Your task to perform on an android device: allow cookies in the chrome app Image 0: 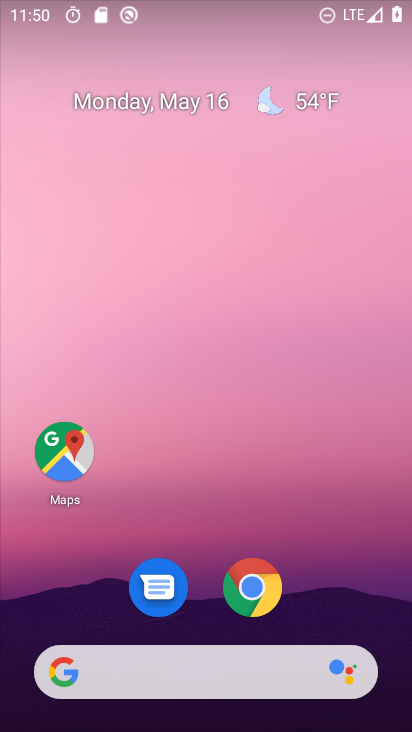
Step 0: drag from (196, 615) to (275, 105)
Your task to perform on an android device: allow cookies in the chrome app Image 1: 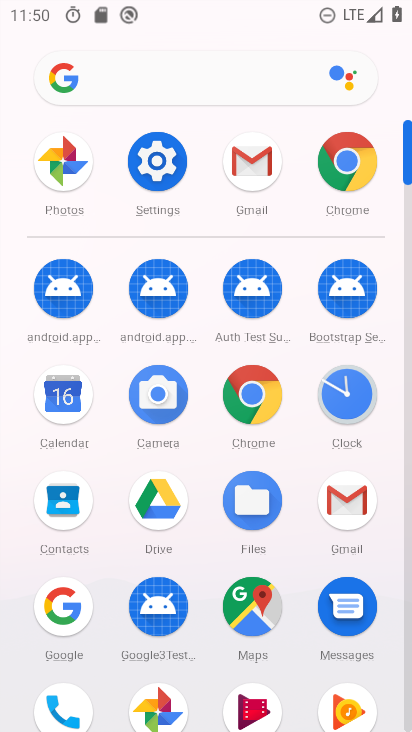
Step 1: click (248, 390)
Your task to perform on an android device: allow cookies in the chrome app Image 2: 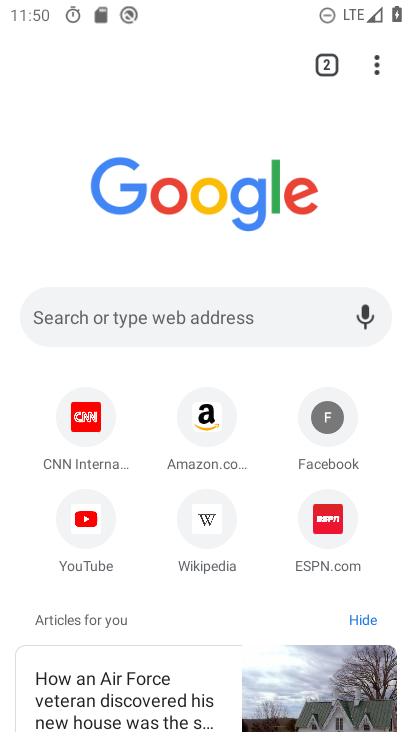
Step 2: drag from (220, 663) to (275, 207)
Your task to perform on an android device: allow cookies in the chrome app Image 3: 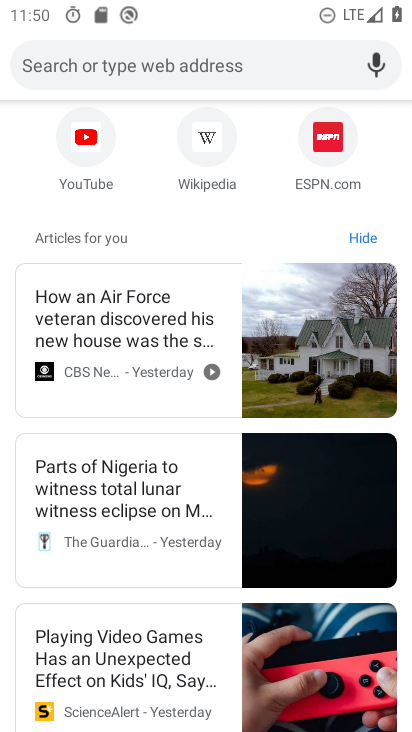
Step 3: drag from (277, 206) to (407, 79)
Your task to perform on an android device: allow cookies in the chrome app Image 4: 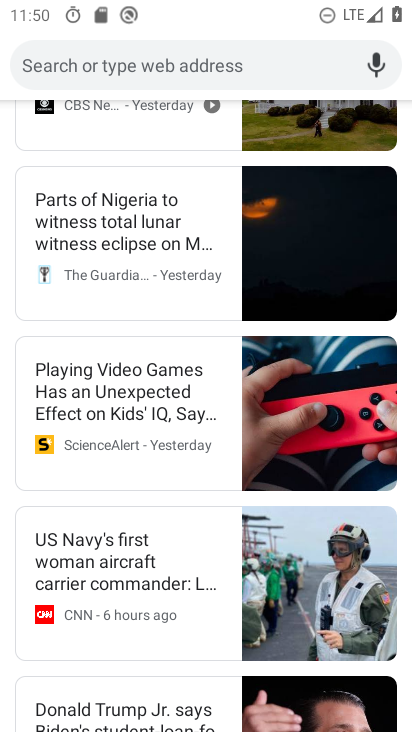
Step 4: click (379, 57)
Your task to perform on an android device: allow cookies in the chrome app Image 5: 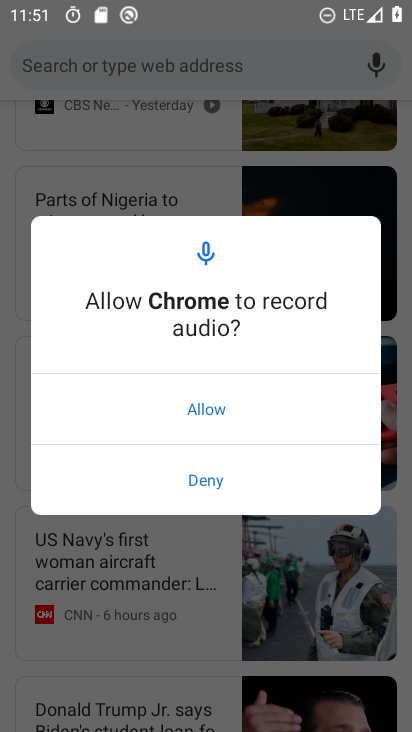
Step 5: press back button
Your task to perform on an android device: allow cookies in the chrome app Image 6: 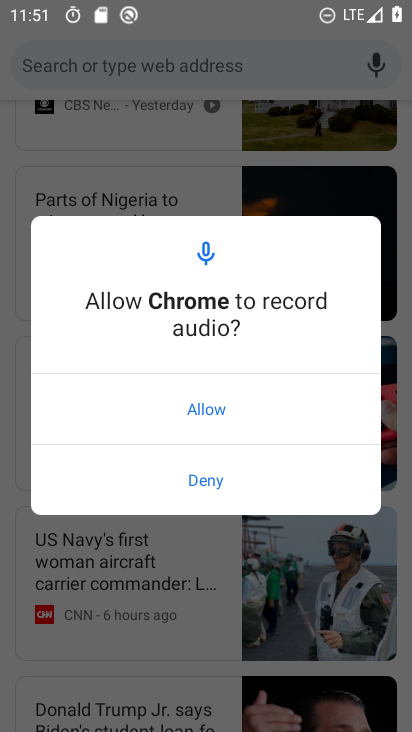
Step 6: click (192, 159)
Your task to perform on an android device: allow cookies in the chrome app Image 7: 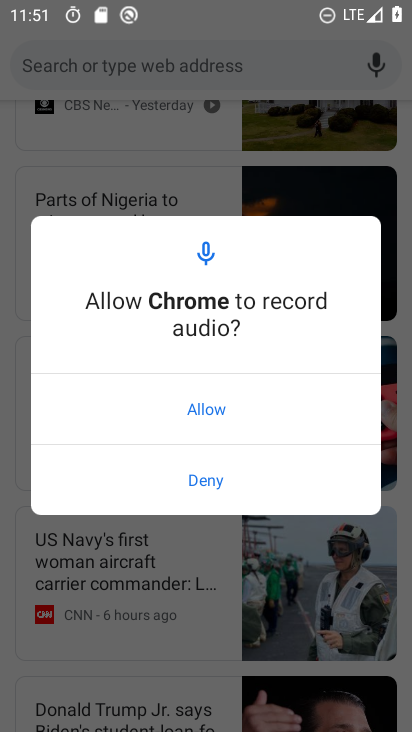
Step 7: click (188, 155)
Your task to perform on an android device: allow cookies in the chrome app Image 8: 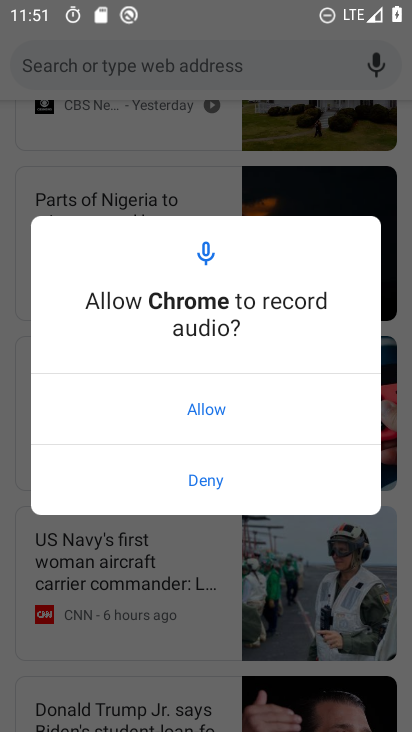
Step 8: press back button
Your task to perform on an android device: allow cookies in the chrome app Image 9: 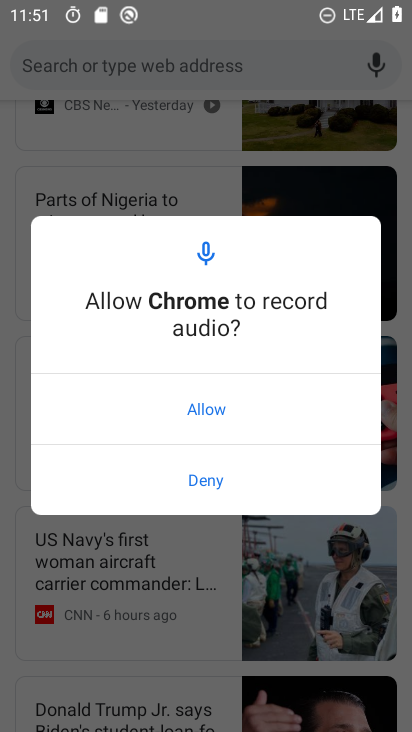
Step 9: press back button
Your task to perform on an android device: allow cookies in the chrome app Image 10: 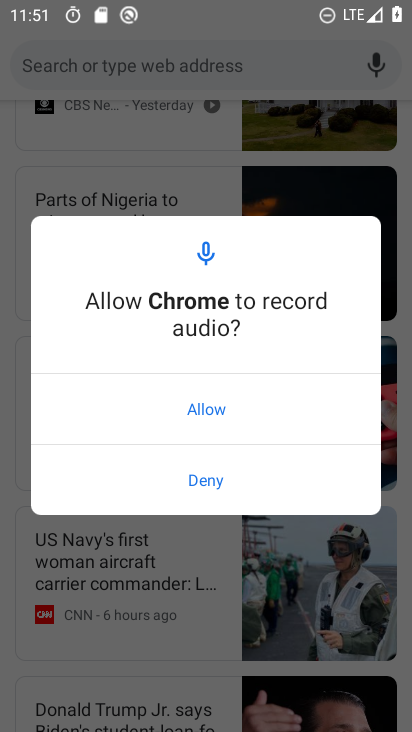
Step 10: press home button
Your task to perform on an android device: allow cookies in the chrome app Image 11: 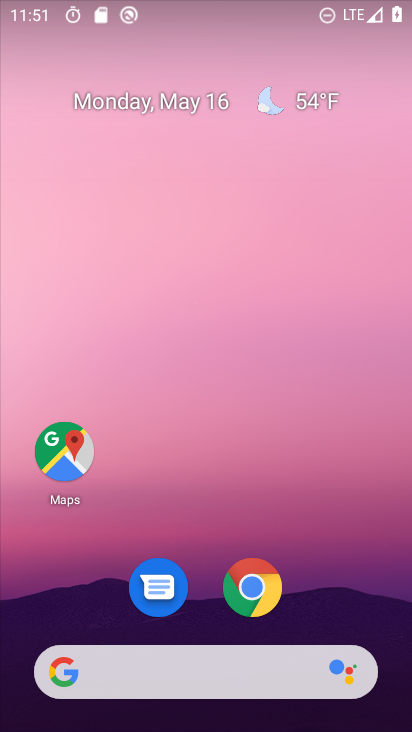
Step 11: click (247, 584)
Your task to perform on an android device: allow cookies in the chrome app Image 12: 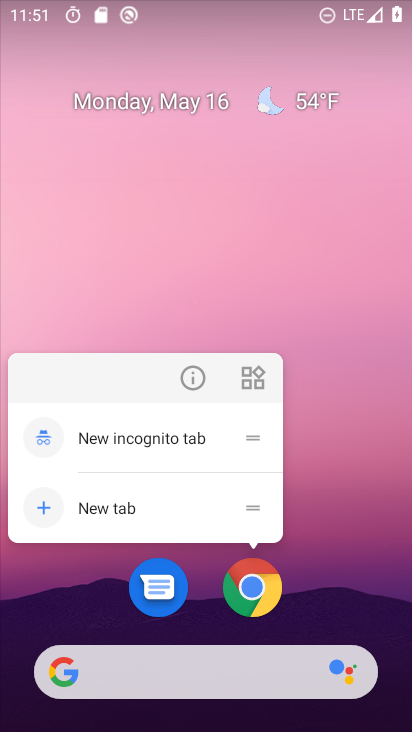
Step 12: click (185, 379)
Your task to perform on an android device: allow cookies in the chrome app Image 13: 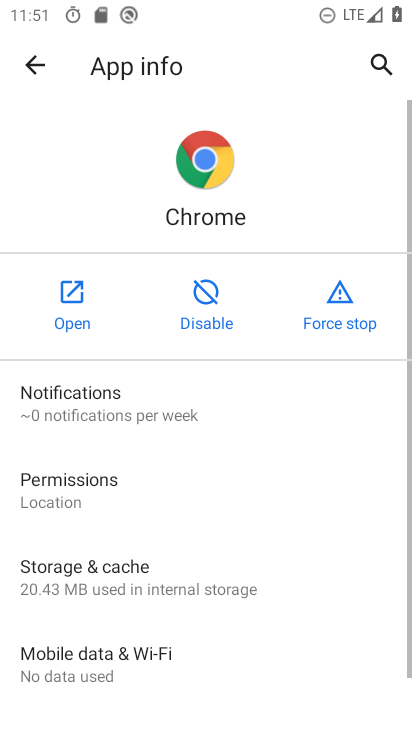
Step 13: click (67, 284)
Your task to perform on an android device: allow cookies in the chrome app Image 14: 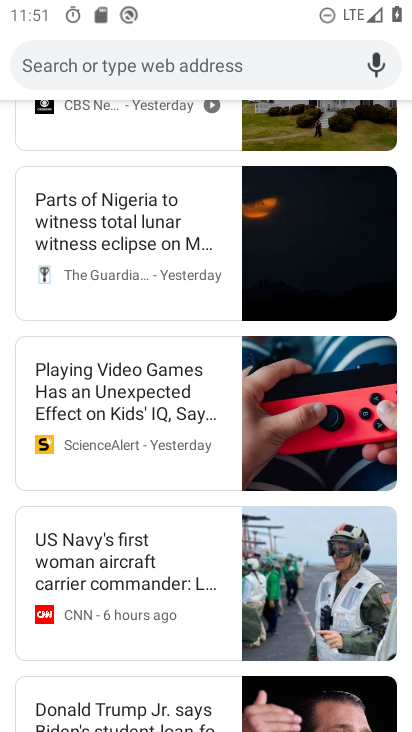
Step 14: drag from (195, 232) to (256, 637)
Your task to perform on an android device: allow cookies in the chrome app Image 15: 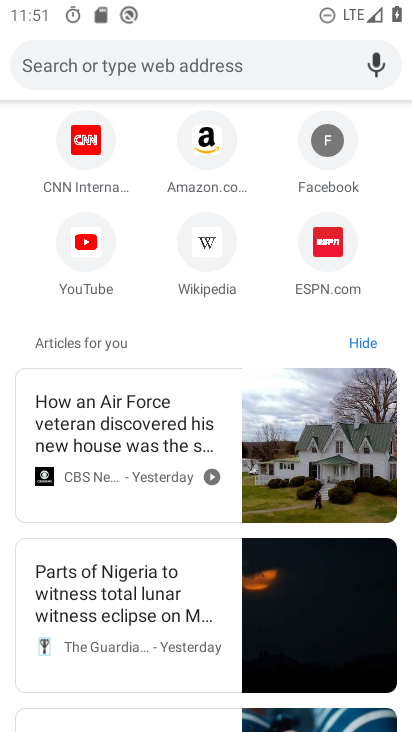
Step 15: drag from (252, 144) to (334, 730)
Your task to perform on an android device: allow cookies in the chrome app Image 16: 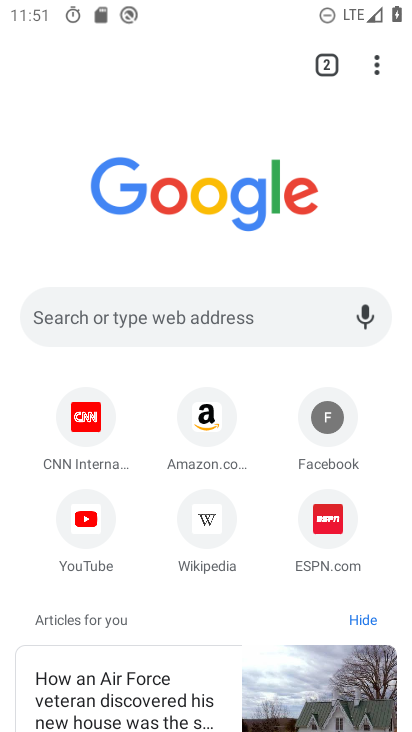
Step 16: click (376, 51)
Your task to perform on an android device: allow cookies in the chrome app Image 17: 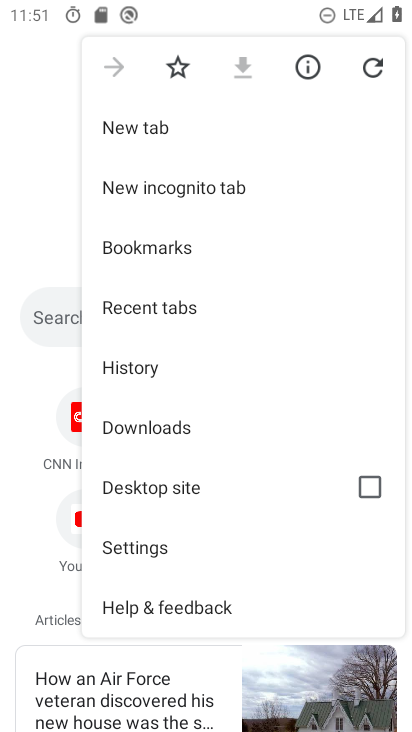
Step 17: click (223, 538)
Your task to perform on an android device: allow cookies in the chrome app Image 18: 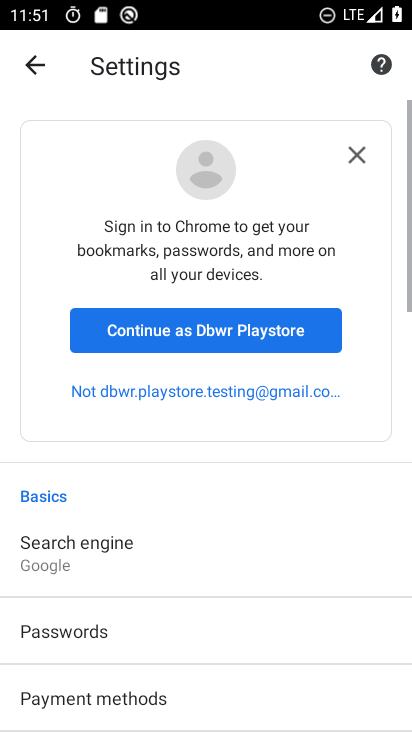
Step 18: drag from (246, 537) to (304, 115)
Your task to perform on an android device: allow cookies in the chrome app Image 19: 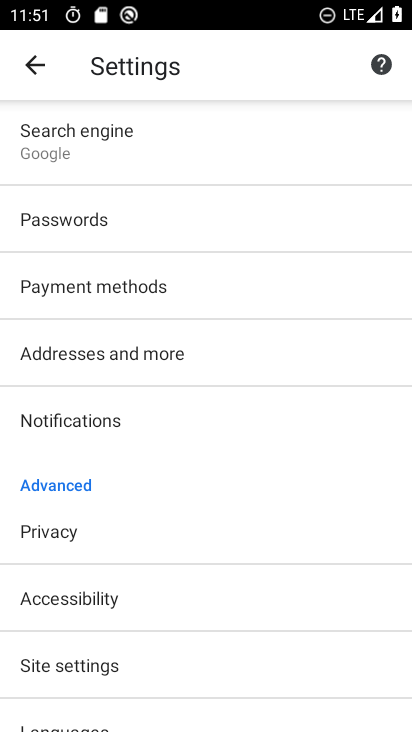
Step 19: drag from (188, 600) to (243, 219)
Your task to perform on an android device: allow cookies in the chrome app Image 20: 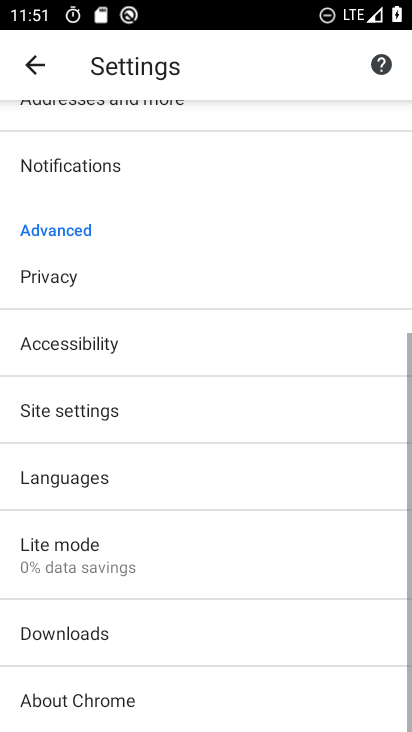
Step 20: click (86, 417)
Your task to perform on an android device: allow cookies in the chrome app Image 21: 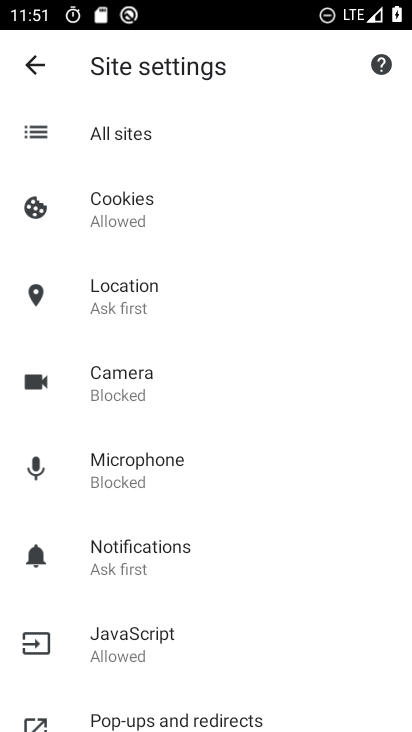
Step 21: click (128, 213)
Your task to perform on an android device: allow cookies in the chrome app Image 22: 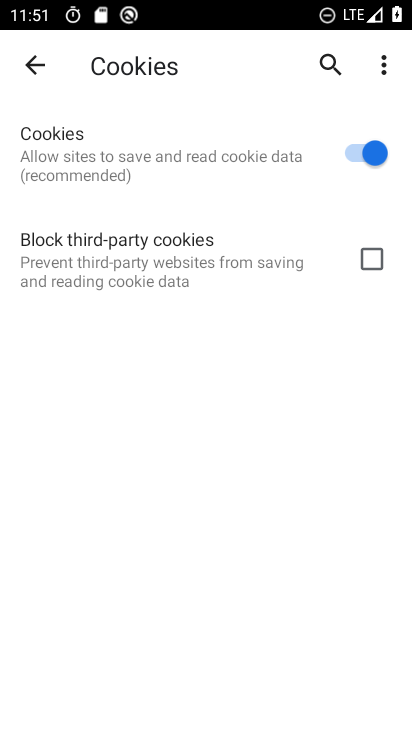
Step 22: task complete